Your task to perform on an android device: toggle airplane mode Image 0: 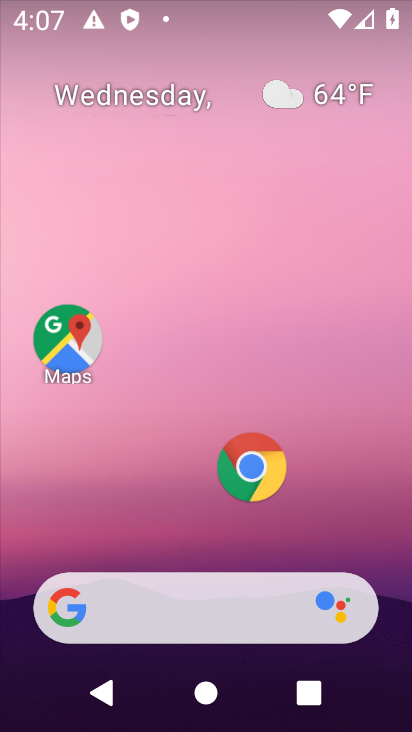
Step 0: drag from (168, 533) to (277, 66)
Your task to perform on an android device: toggle airplane mode Image 1: 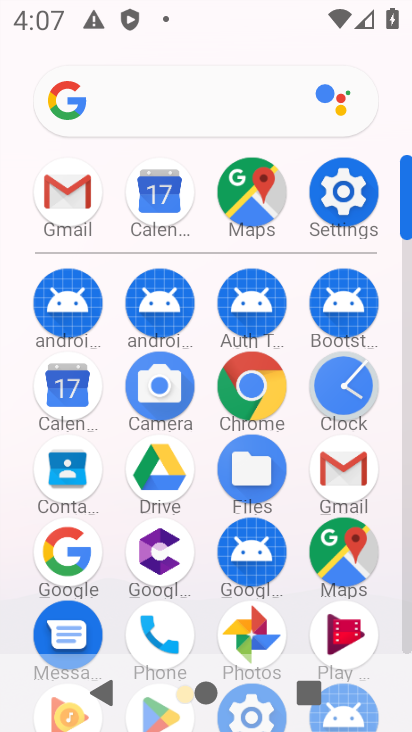
Step 1: task complete